Your task to perform on an android device: find snoozed emails in the gmail app Image 0: 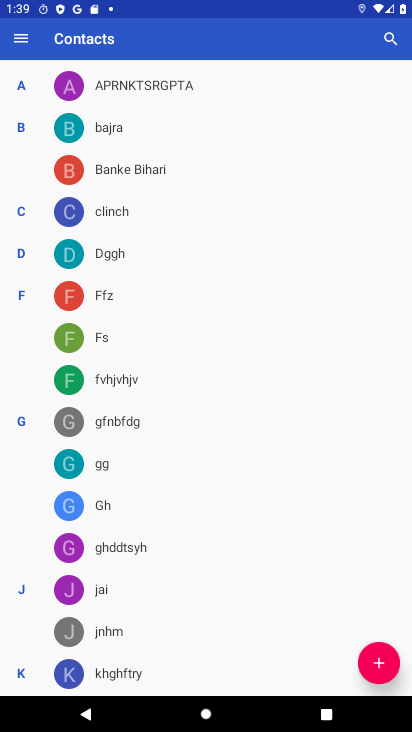
Step 0: press home button
Your task to perform on an android device: find snoozed emails in the gmail app Image 1: 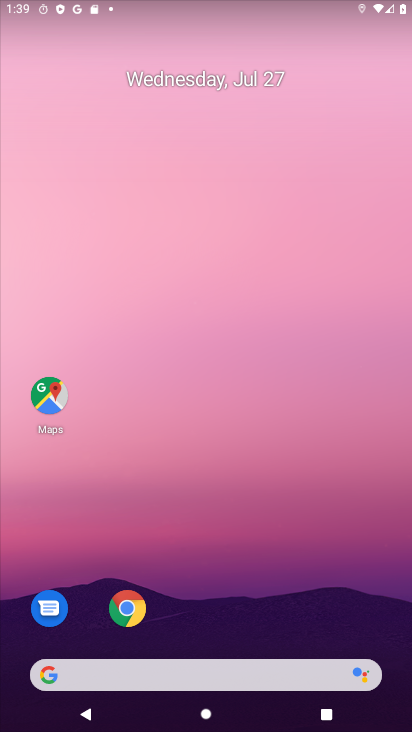
Step 1: drag from (195, 587) to (235, 49)
Your task to perform on an android device: find snoozed emails in the gmail app Image 2: 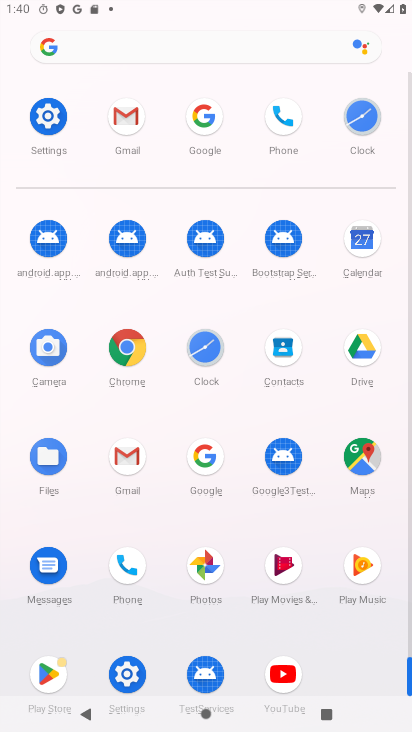
Step 2: click (128, 462)
Your task to perform on an android device: find snoozed emails in the gmail app Image 3: 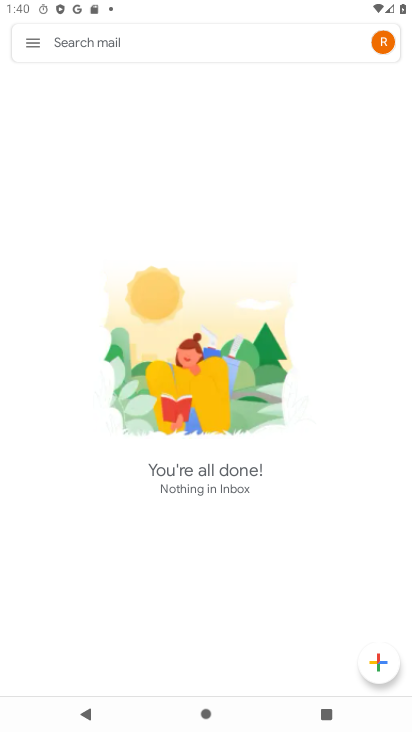
Step 3: click (27, 43)
Your task to perform on an android device: find snoozed emails in the gmail app Image 4: 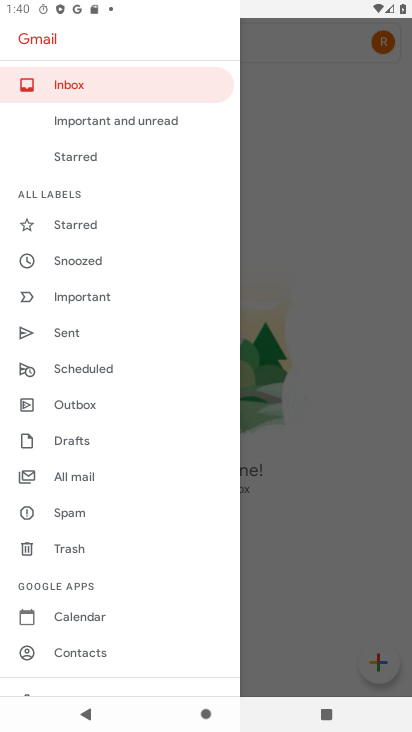
Step 4: click (63, 258)
Your task to perform on an android device: find snoozed emails in the gmail app Image 5: 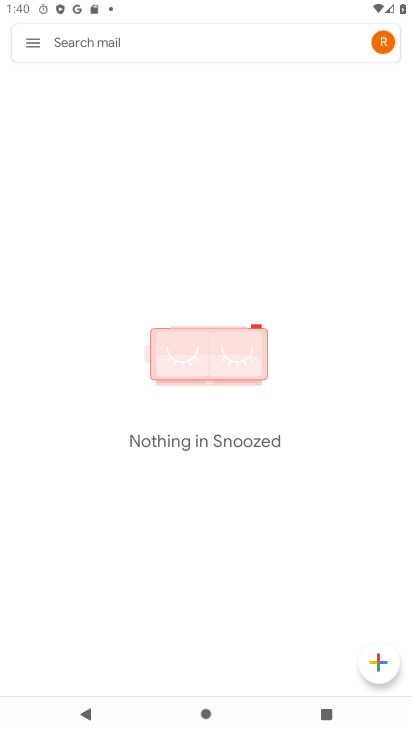
Step 5: task complete